Your task to perform on an android device: When is my next meeting? Image 0: 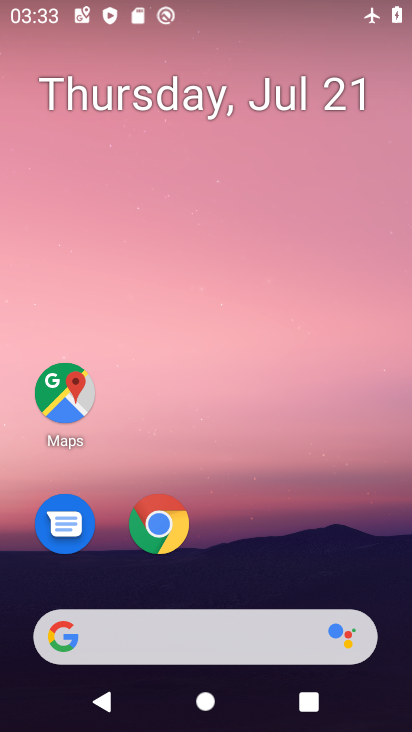
Step 0: drag from (334, 489) to (322, 5)
Your task to perform on an android device: When is my next meeting? Image 1: 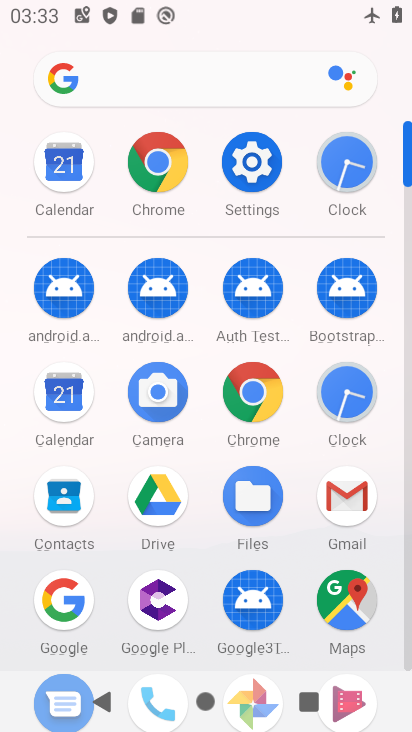
Step 1: click (68, 169)
Your task to perform on an android device: When is my next meeting? Image 2: 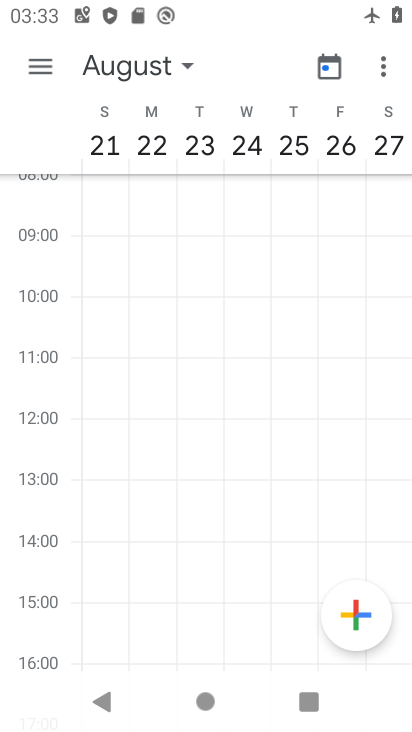
Step 2: click (35, 62)
Your task to perform on an android device: When is my next meeting? Image 3: 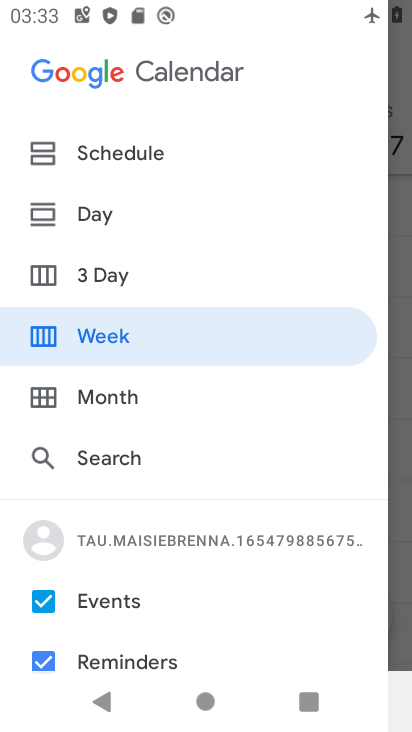
Step 3: click (40, 398)
Your task to perform on an android device: When is my next meeting? Image 4: 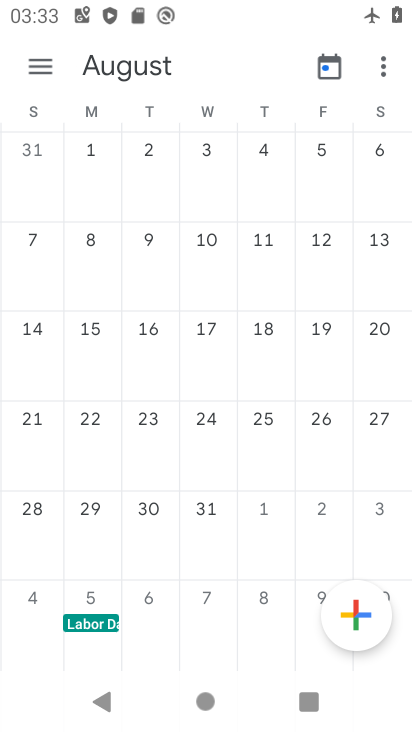
Step 4: drag from (29, 354) to (410, 422)
Your task to perform on an android device: When is my next meeting? Image 5: 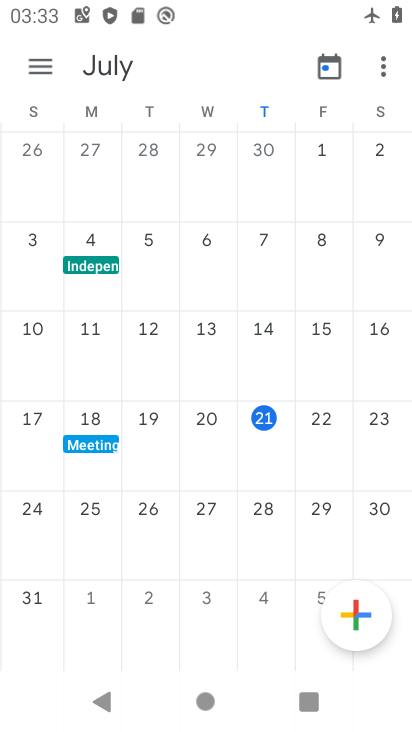
Step 5: click (265, 430)
Your task to perform on an android device: When is my next meeting? Image 6: 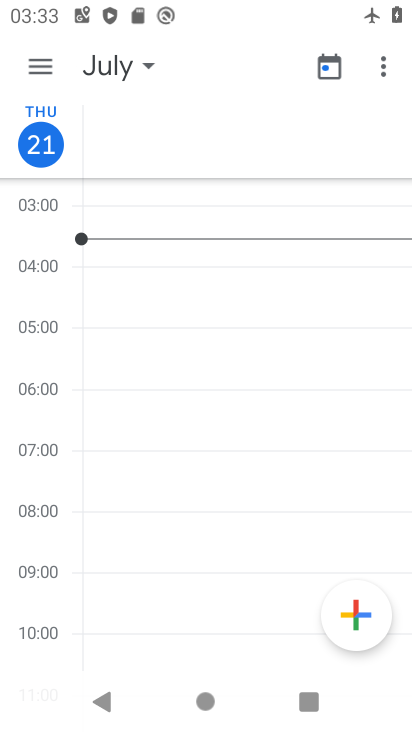
Step 6: click (55, 138)
Your task to perform on an android device: When is my next meeting? Image 7: 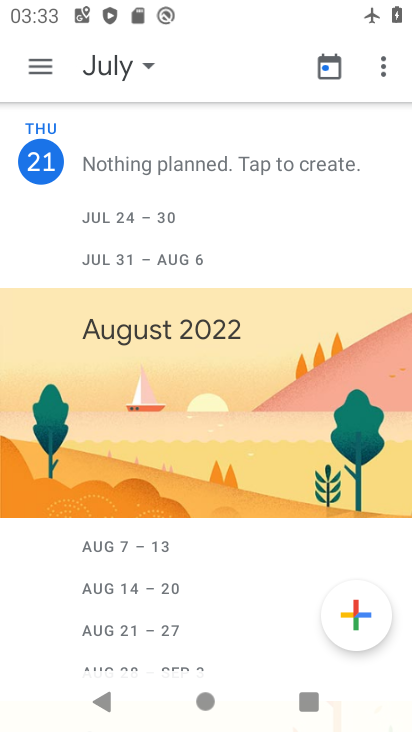
Step 7: task complete